Your task to perform on an android device: turn on data saver in the chrome app Image 0: 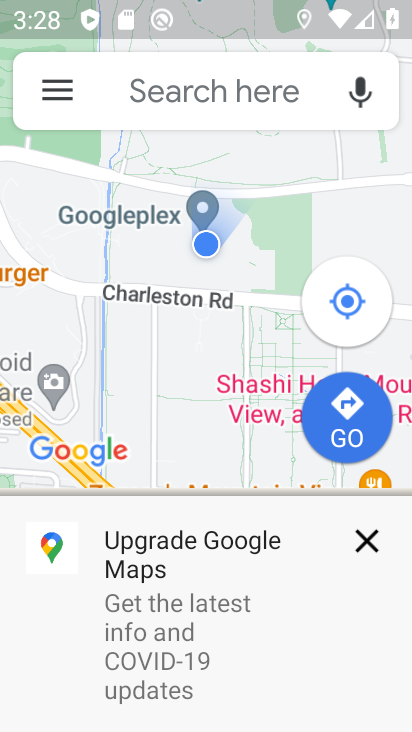
Step 0: click (368, 540)
Your task to perform on an android device: turn on data saver in the chrome app Image 1: 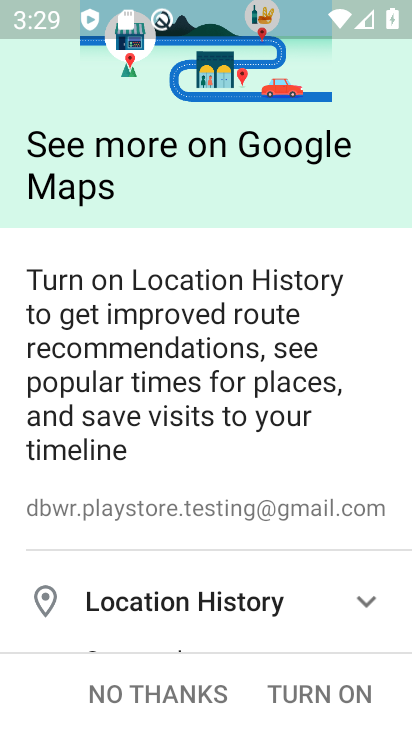
Step 1: click (158, 690)
Your task to perform on an android device: turn on data saver in the chrome app Image 2: 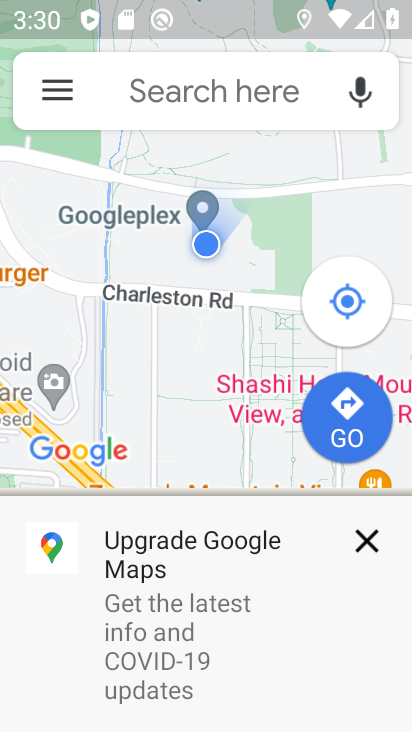
Step 2: click (358, 538)
Your task to perform on an android device: turn on data saver in the chrome app Image 3: 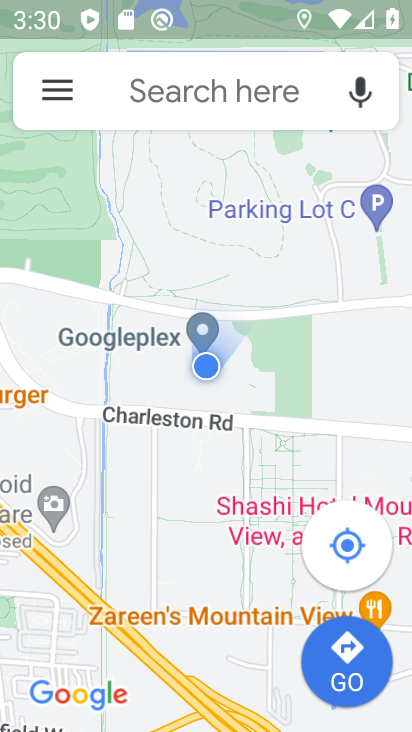
Step 3: press home button
Your task to perform on an android device: turn on data saver in the chrome app Image 4: 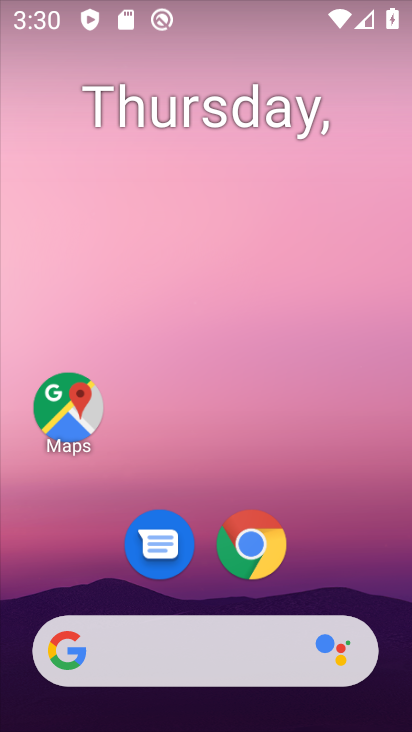
Step 4: click (265, 530)
Your task to perform on an android device: turn on data saver in the chrome app Image 5: 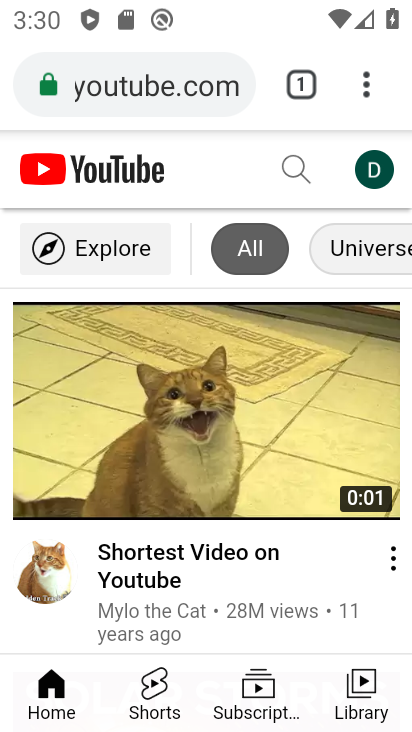
Step 5: click (376, 76)
Your task to perform on an android device: turn on data saver in the chrome app Image 6: 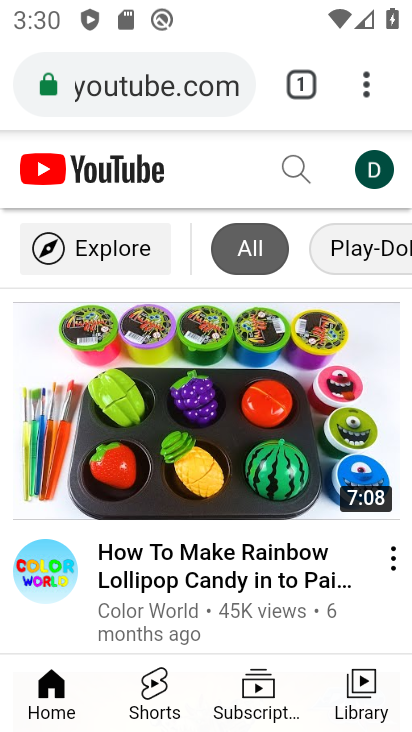
Step 6: click (364, 78)
Your task to perform on an android device: turn on data saver in the chrome app Image 7: 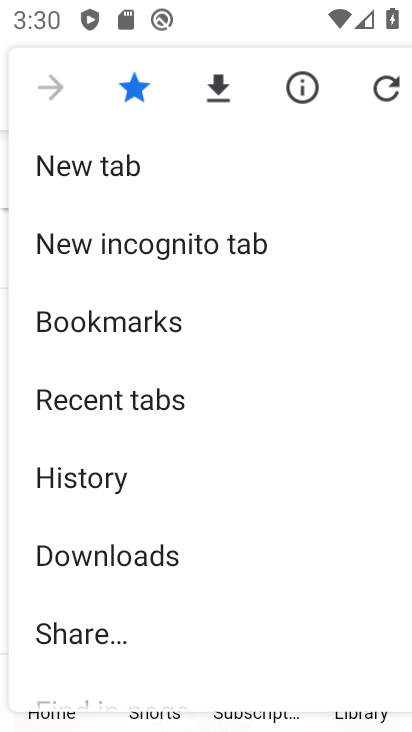
Step 7: drag from (136, 637) to (171, 147)
Your task to perform on an android device: turn on data saver in the chrome app Image 8: 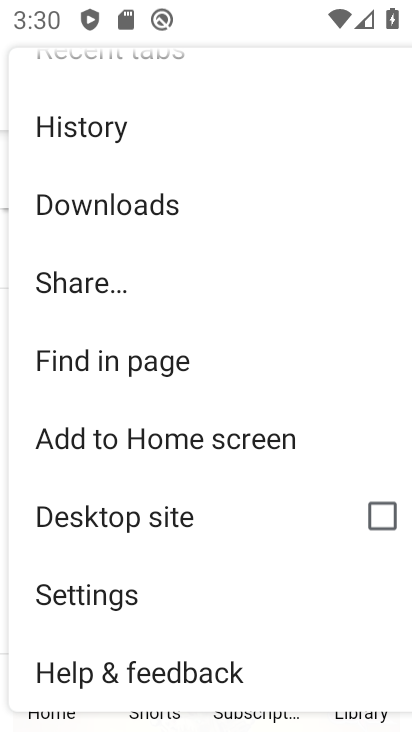
Step 8: click (120, 600)
Your task to perform on an android device: turn on data saver in the chrome app Image 9: 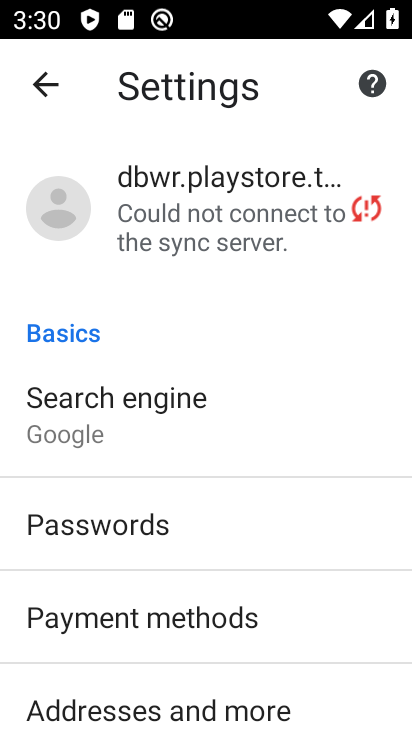
Step 9: drag from (153, 649) to (174, 259)
Your task to perform on an android device: turn on data saver in the chrome app Image 10: 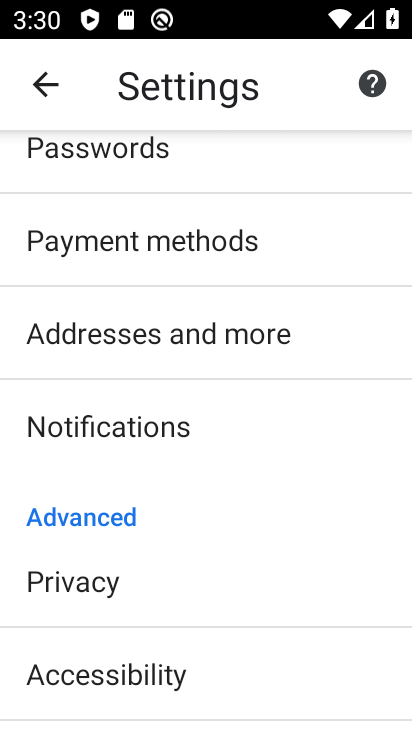
Step 10: drag from (192, 632) to (212, 260)
Your task to perform on an android device: turn on data saver in the chrome app Image 11: 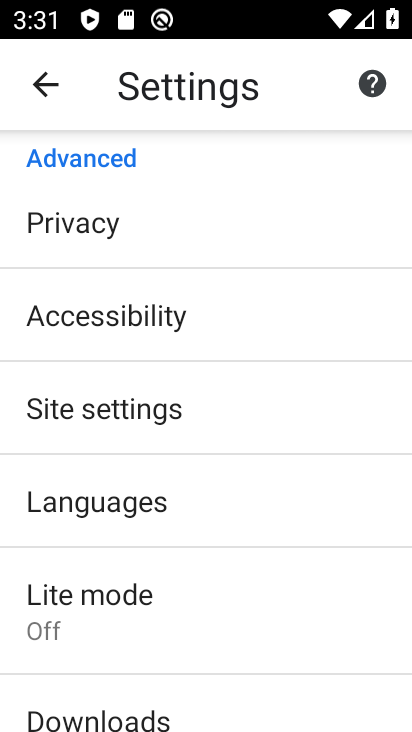
Step 11: drag from (140, 654) to (167, 254)
Your task to perform on an android device: turn on data saver in the chrome app Image 12: 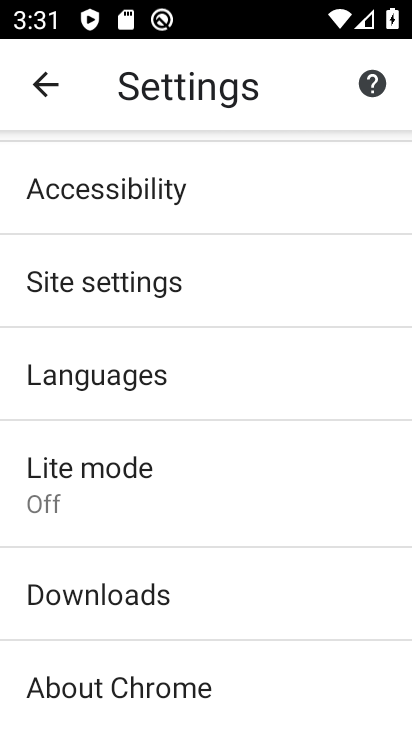
Step 12: drag from (127, 294) to (148, 514)
Your task to perform on an android device: turn on data saver in the chrome app Image 13: 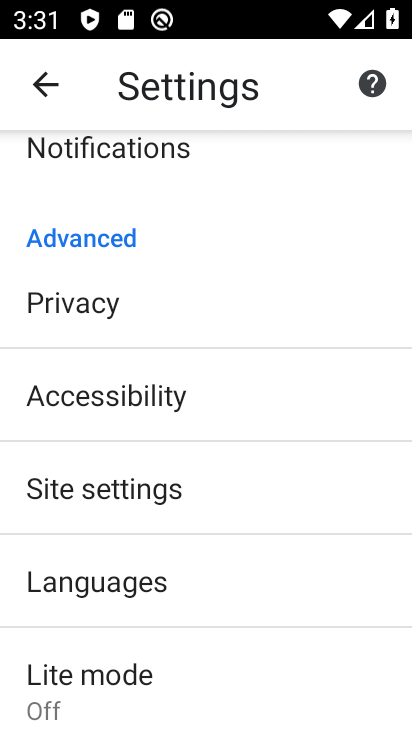
Step 13: click (119, 663)
Your task to perform on an android device: turn on data saver in the chrome app Image 14: 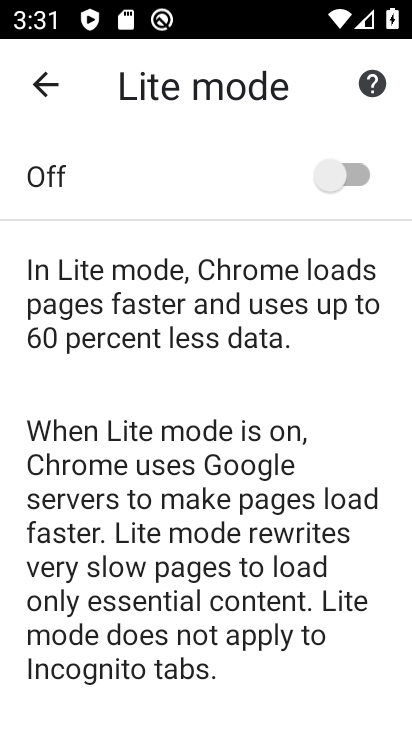
Step 14: click (322, 183)
Your task to perform on an android device: turn on data saver in the chrome app Image 15: 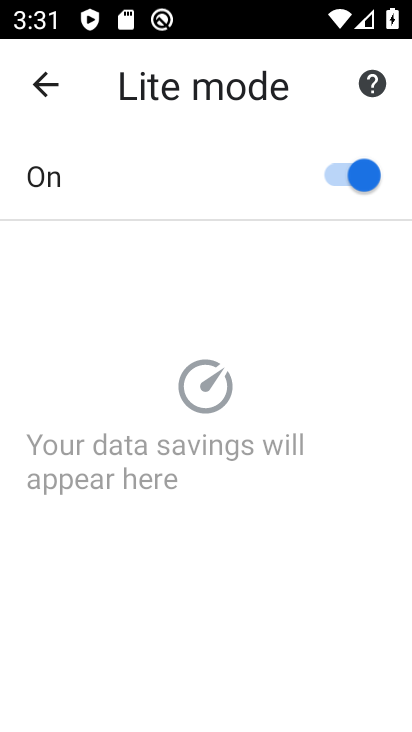
Step 15: task complete